Your task to perform on an android device: Is it going to rain this weekend? Image 0: 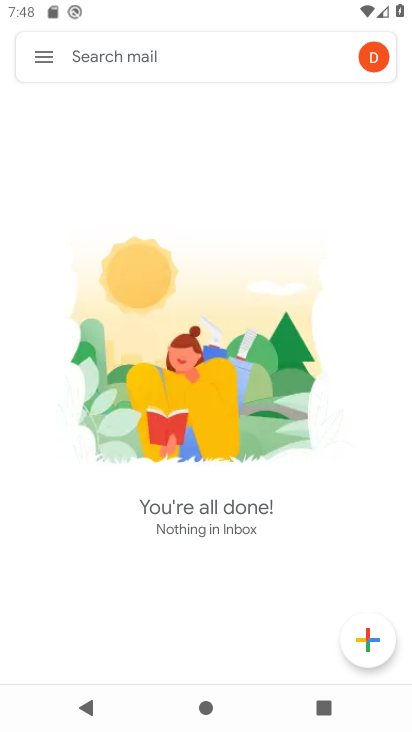
Step 0: press home button
Your task to perform on an android device: Is it going to rain this weekend? Image 1: 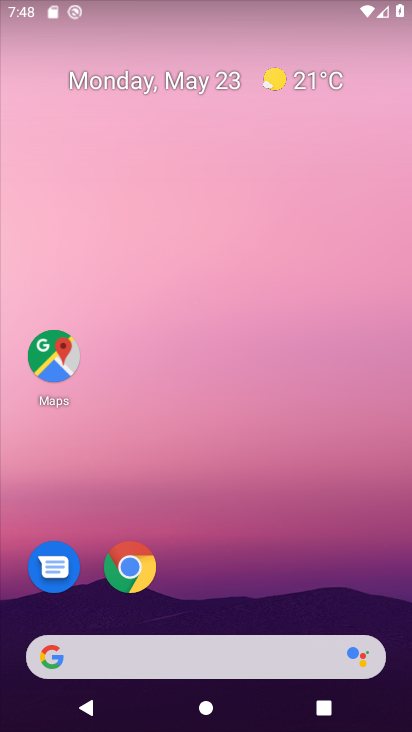
Step 1: click (327, 82)
Your task to perform on an android device: Is it going to rain this weekend? Image 2: 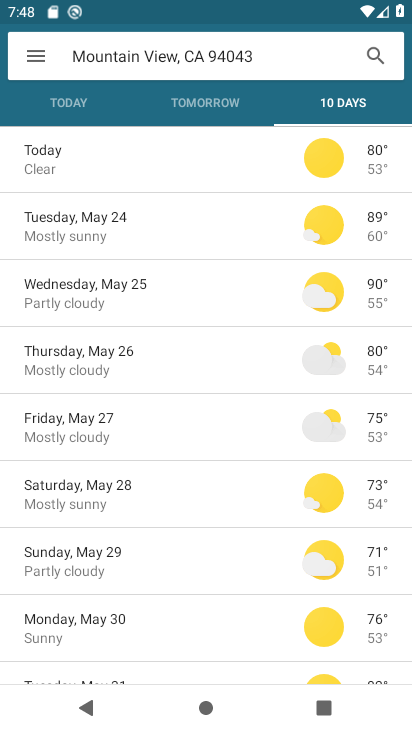
Step 2: task complete